Your task to perform on an android device: Search for vegetarian restaurants on Maps Image 0: 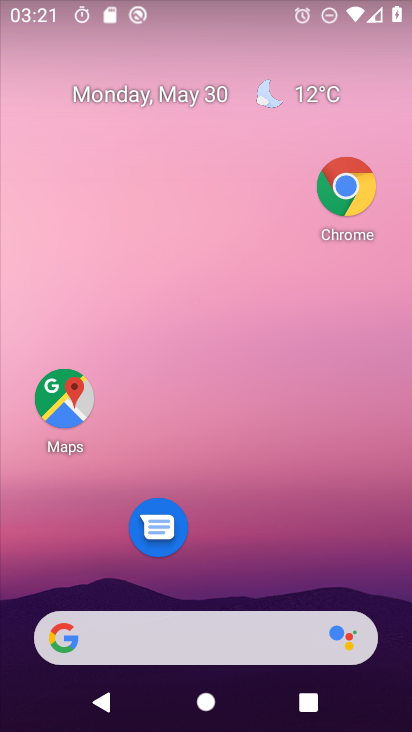
Step 0: drag from (294, 340) to (323, 6)
Your task to perform on an android device: Search for vegetarian restaurants on Maps Image 1: 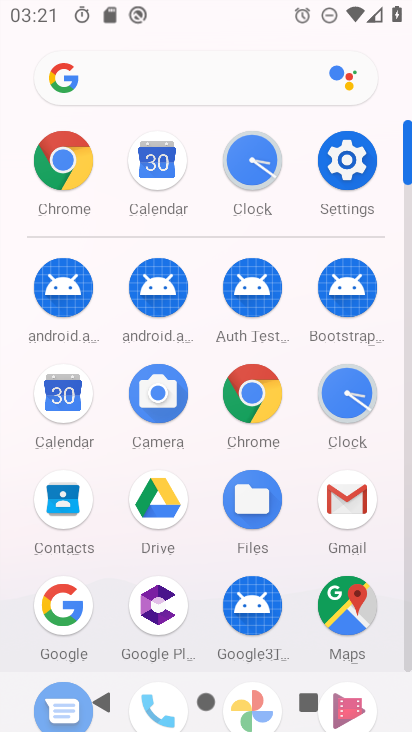
Step 1: click (340, 630)
Your task to perform on an android device: Search for vegetarian restaurants on Maps Image 2: 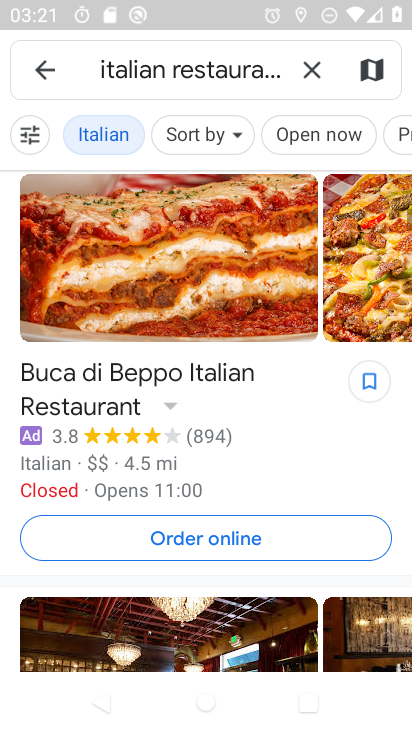
Step 2: click (302, 69)
Your task to perform on an android device: Search for vegetarian restaurants on Maps Image 3: 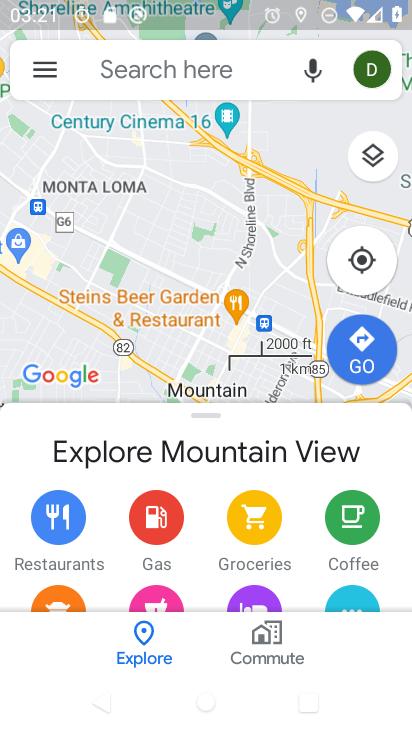
Step 3: click (167, 68)
Your task to perform on an android device: Search for vegetarian restaurants on Maps Image 4: 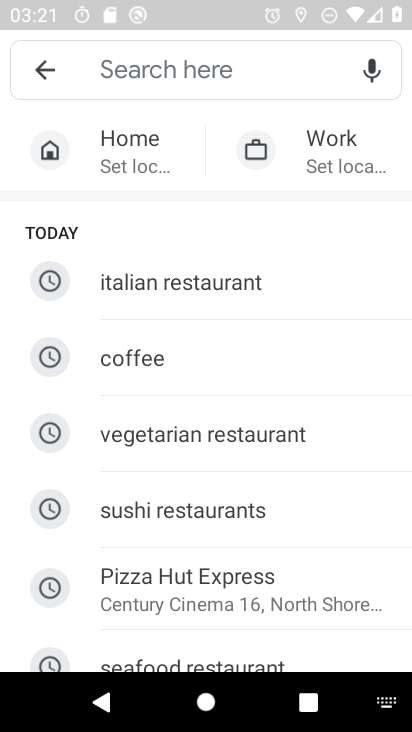
Step 4: click (220, 442)
Your task to perform on an android device: Search for vegetarian restaurants on Maps Image 5: 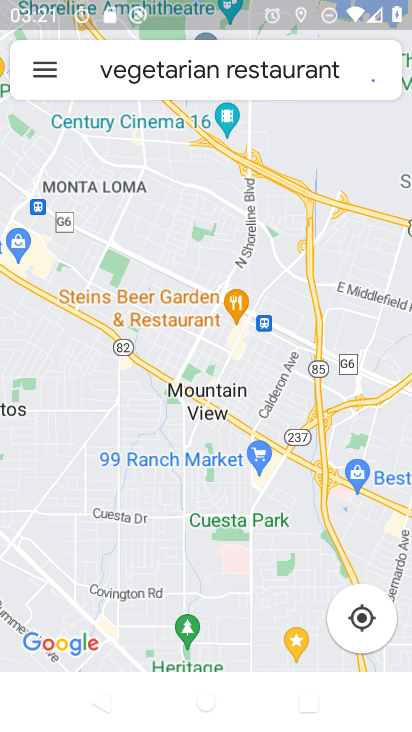
Step 5: task complete